Your task to perform on an android device: empty trash in google photos Image 0: 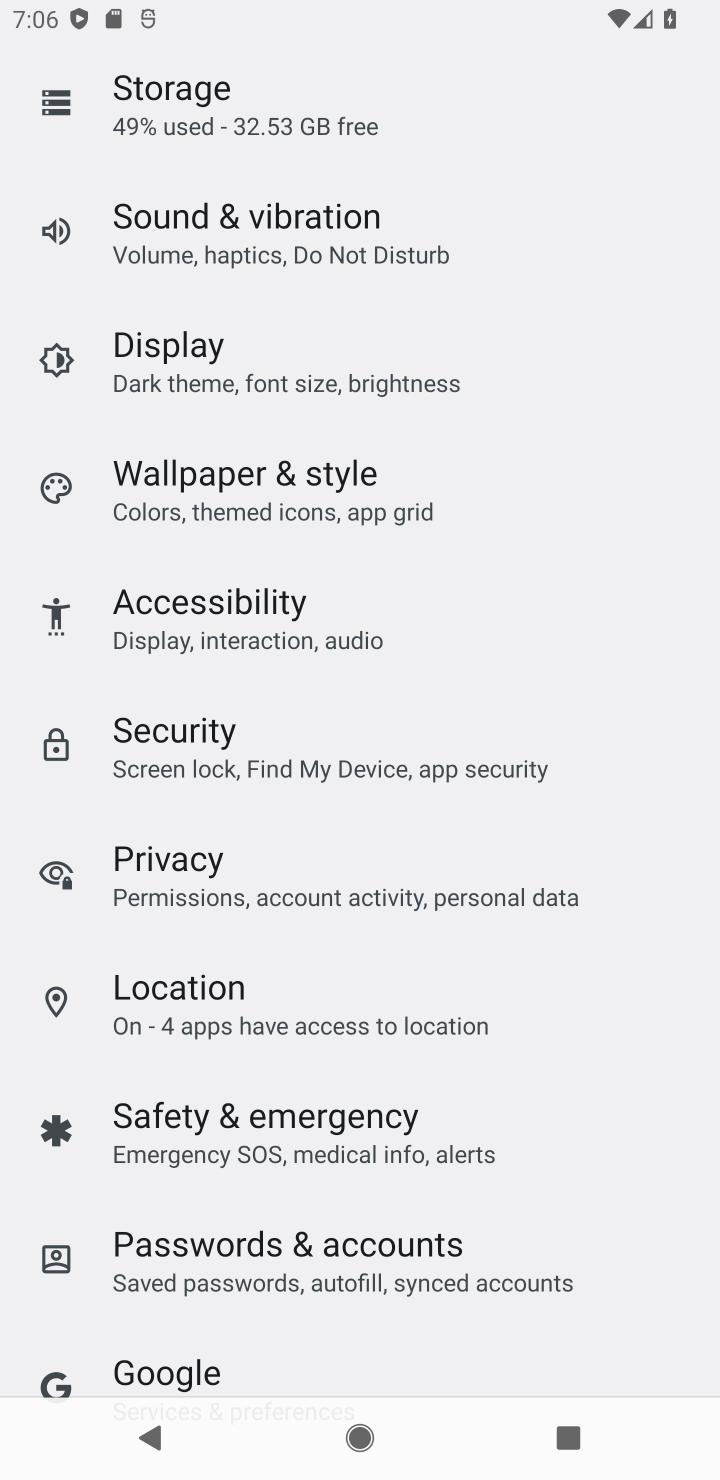
Step 0: press home button
Your task to perform on an android device: empty trash in google photos Image 1: 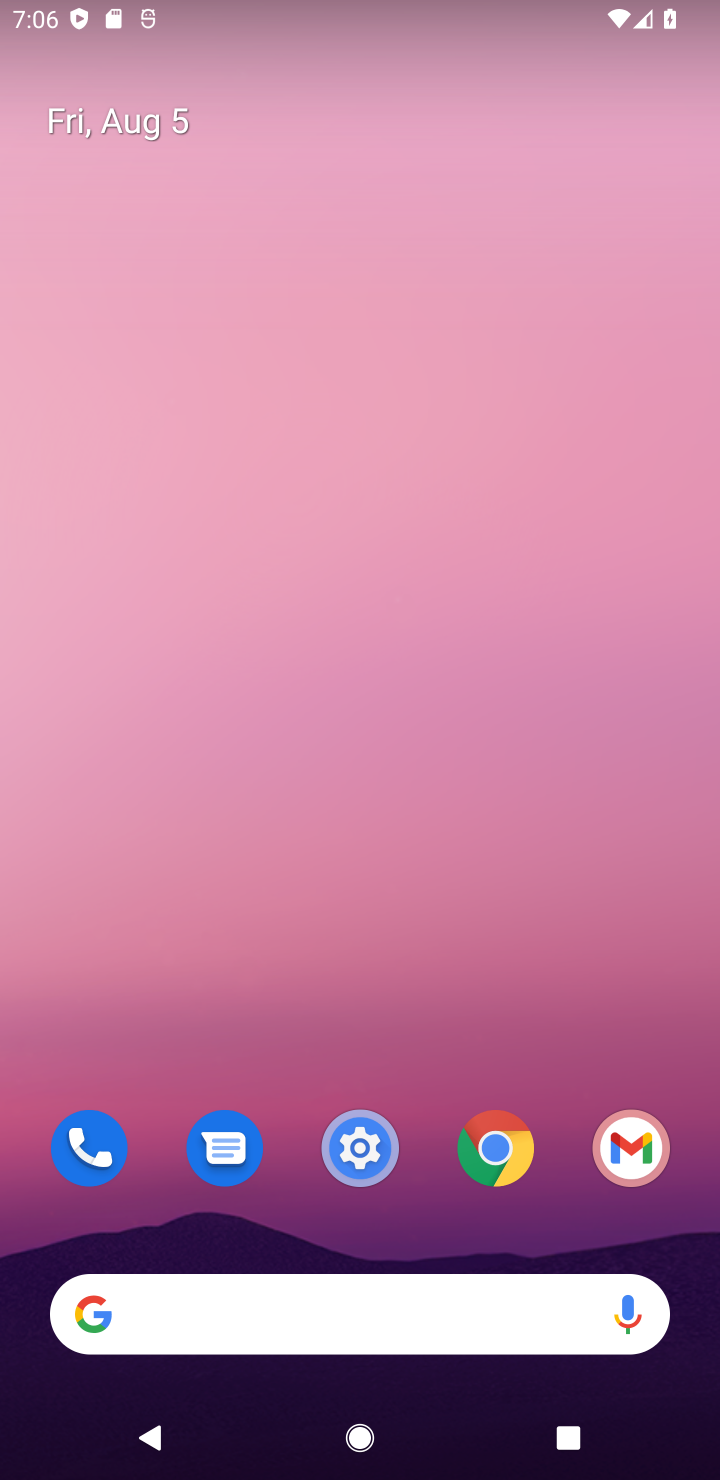
Step 1: drag from (397, 538) to (421, 146)
Your task to perform on an android device: empty trash in google photos Image 2: 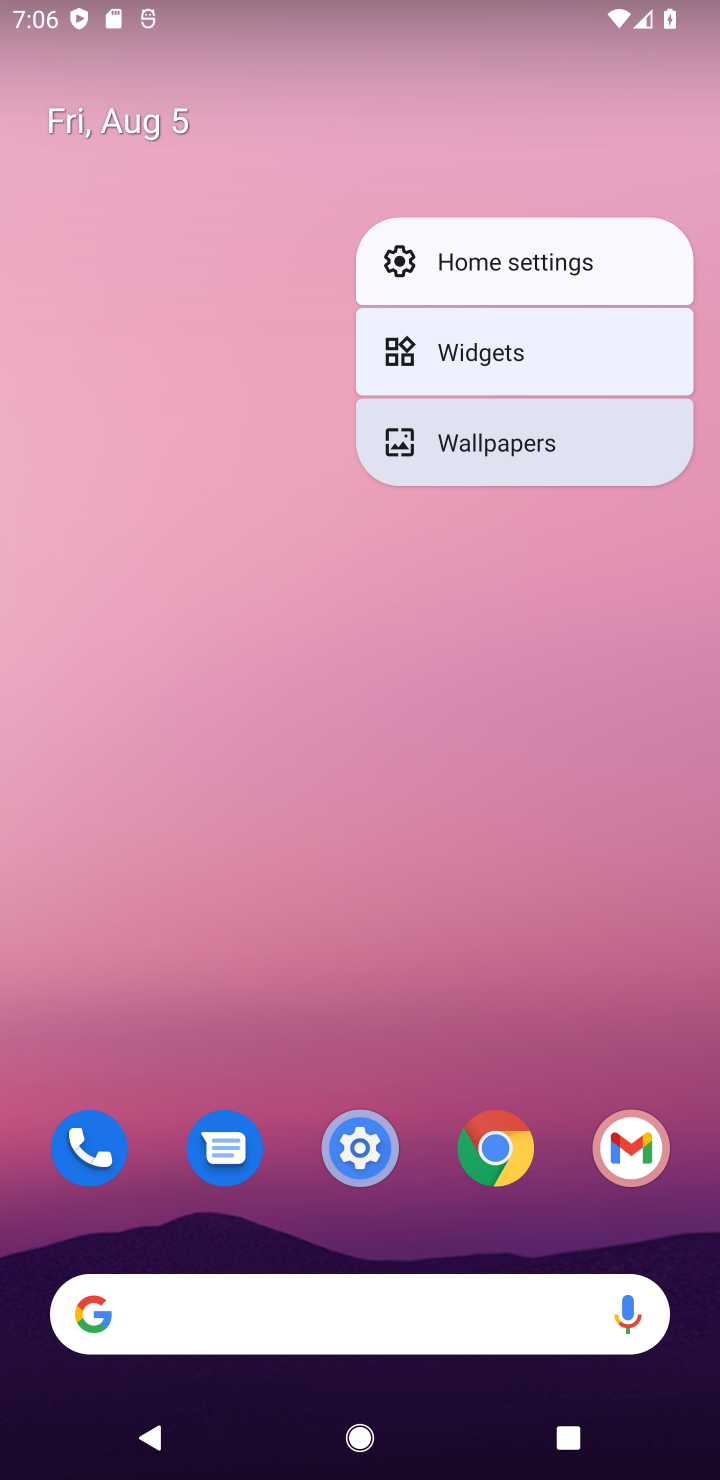
Step 2: click (381, 853)
Your task to perform on an android device: empty trash in google photos Image 3: 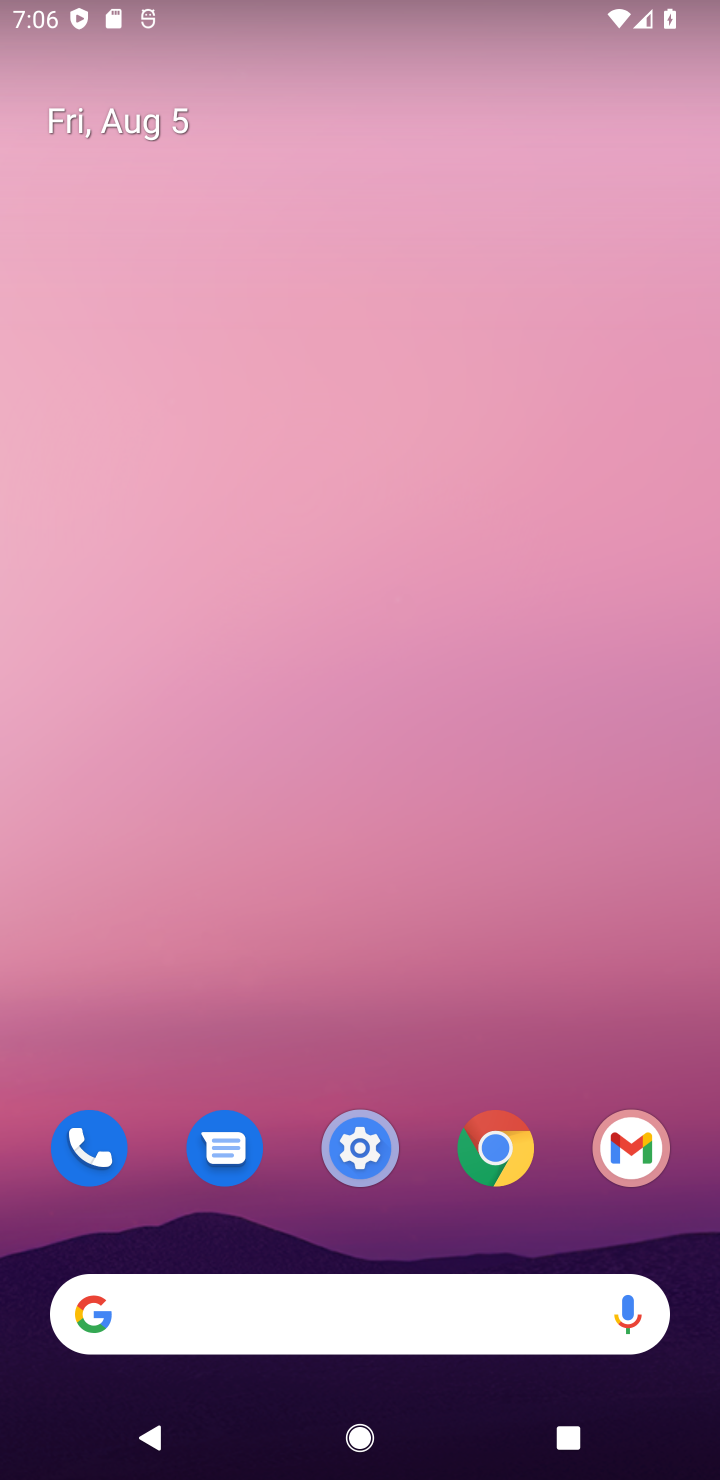
Step 3: drag from (390, 1236) to (404, 218)
Your task to perform on an android device: empty trash in google photos Image 4: 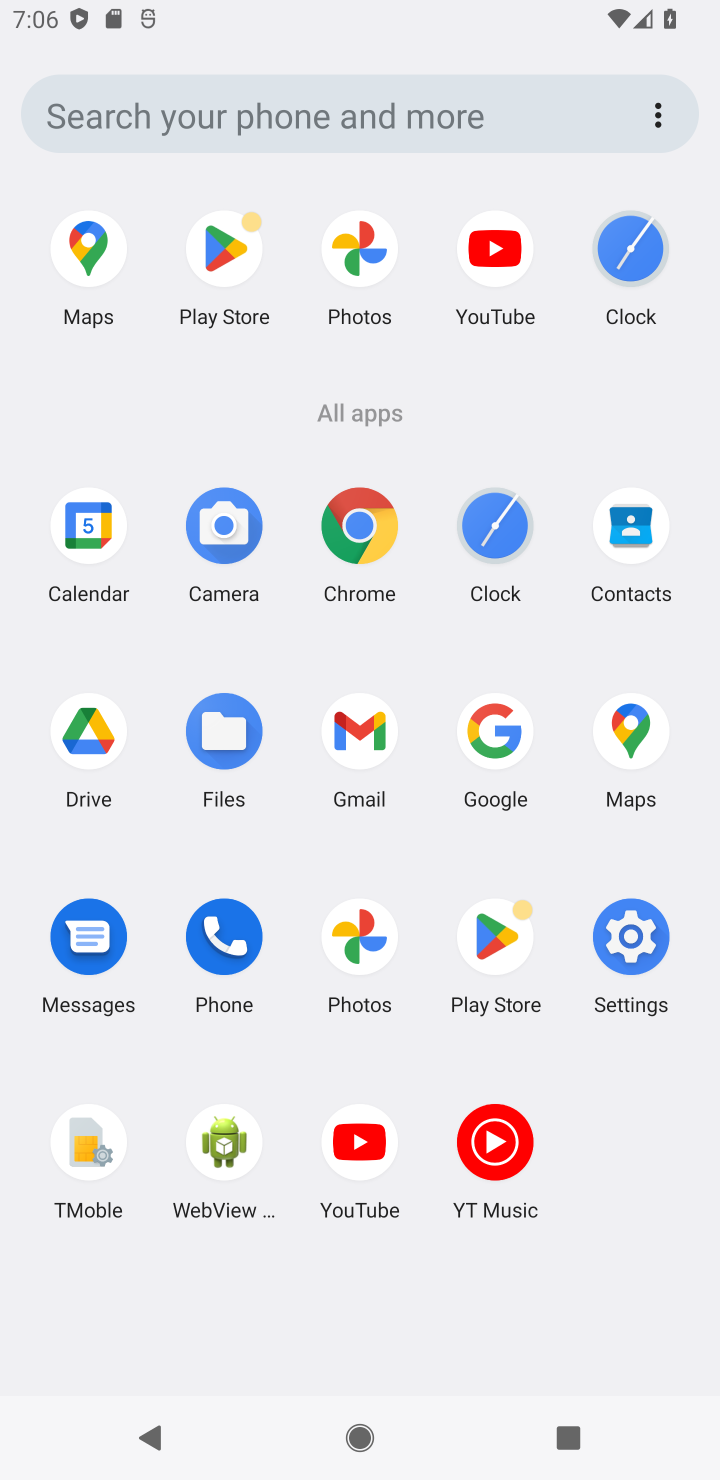
Step 4: click (386, 249)
Your task to perform on an android device: empty trash in google photos Image 5: 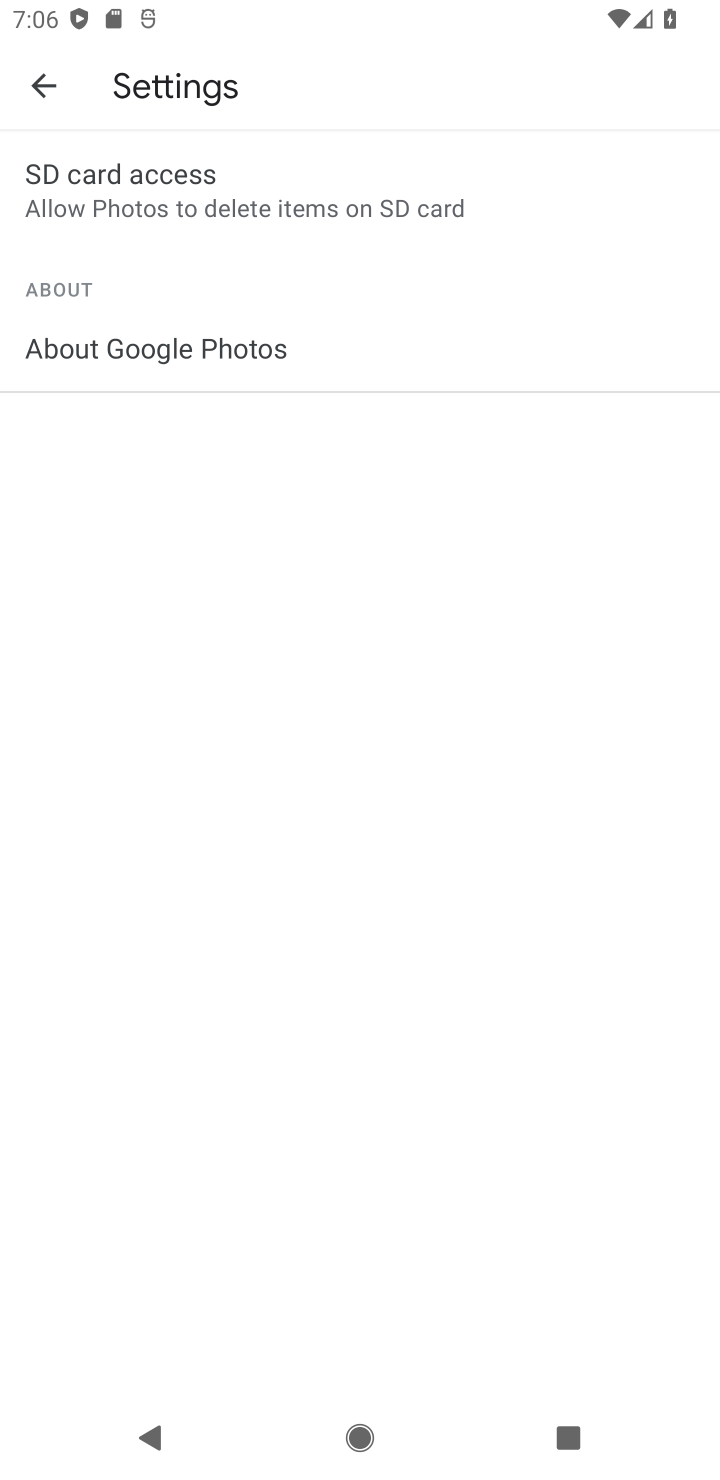
Step 5: task complete